Your task to perform on an android device: Search for pizza restaurants on Maps Image 0: 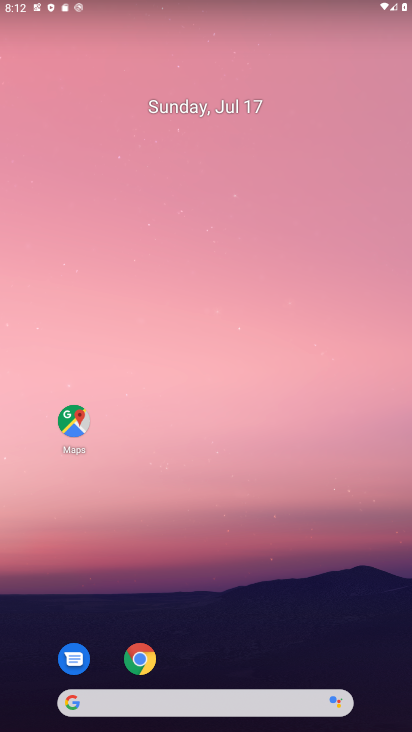
Step 0: click (66, 427)
Your task to perform on an android device: Search for pizza restaurants on Maps Image 1: 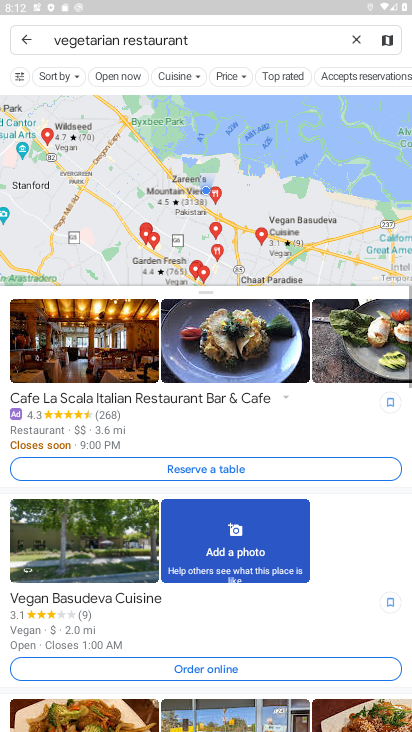
Step 1: click (349, 36)
Your task to perform on an android device: Search for pizza restaurants on Maps Image 2: 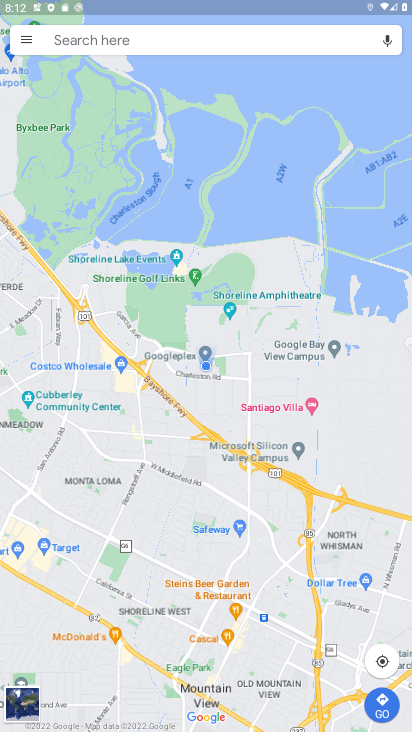
Step 2: click (172, 40)
Your task to perform on an android device: Search for pizza restaurants on Maps Image 3: 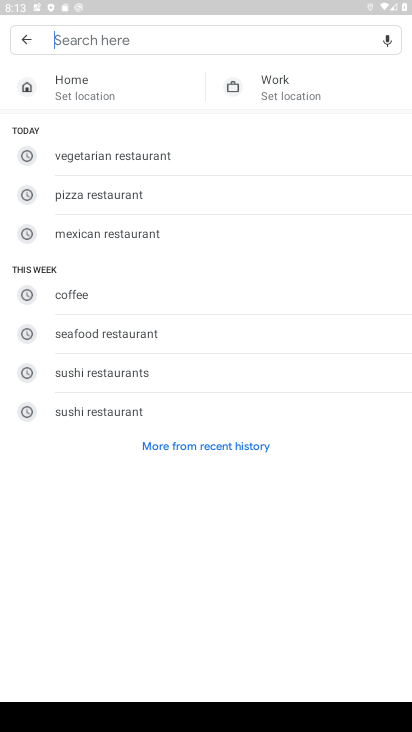
Step 3: click (133, 201)
Your task to perform on an android device: Search for pizza restaurants on Maps Image 4: 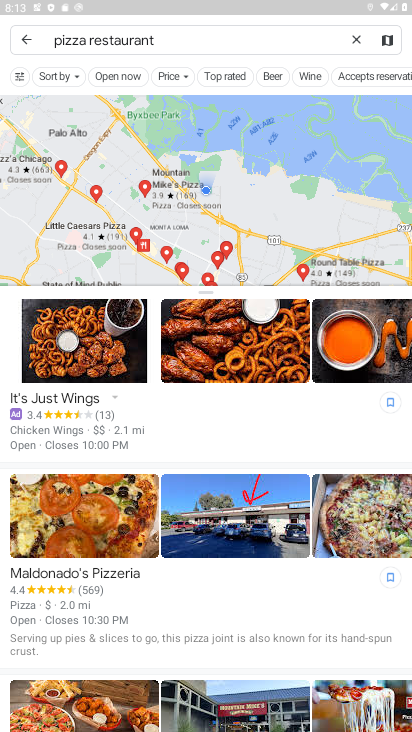
Step 4: task complete